Your task to perform on an android device: turn off location history Image 0: 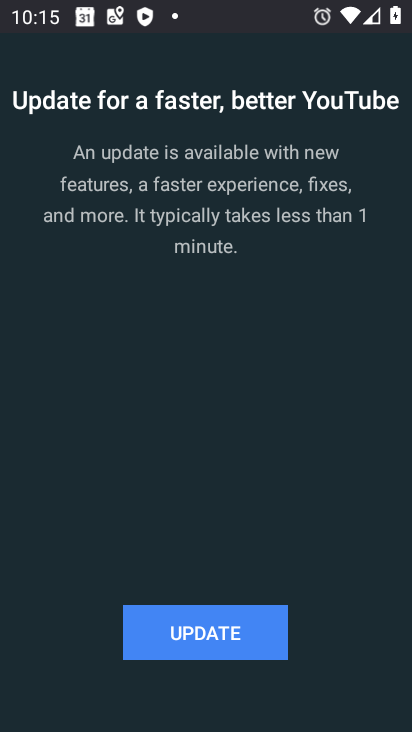
Step 0: press home button
Your task to perform on an android device: turn off location history Image 1: 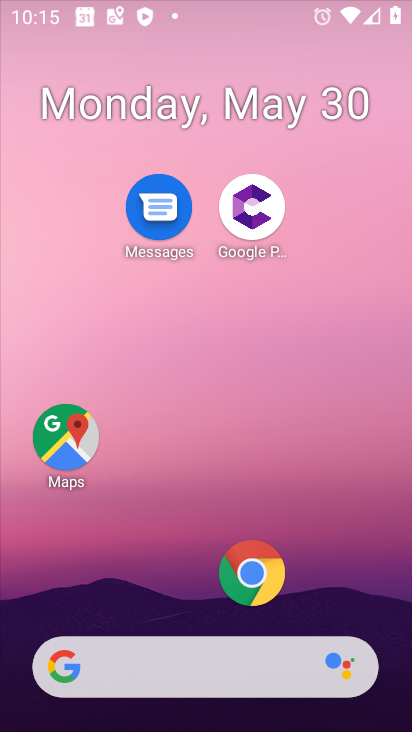
Step 1: drag from (239, 519) to (285, 67)
Your task to perform on an android device: turn off location history Image 2: 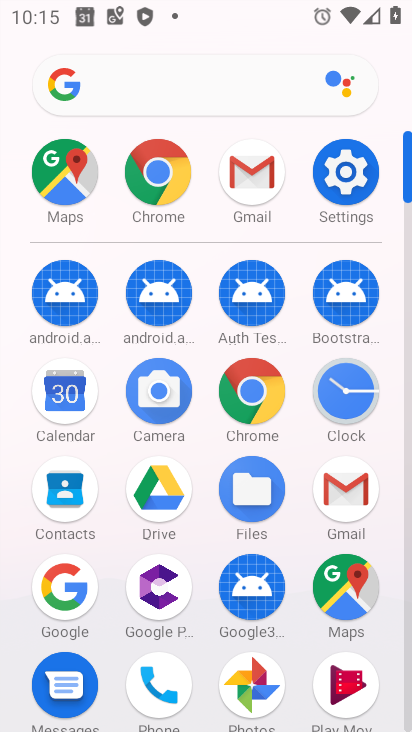
Step 2: click (342, 214)
Your task to perform on an android device: turn off location history Image 3: 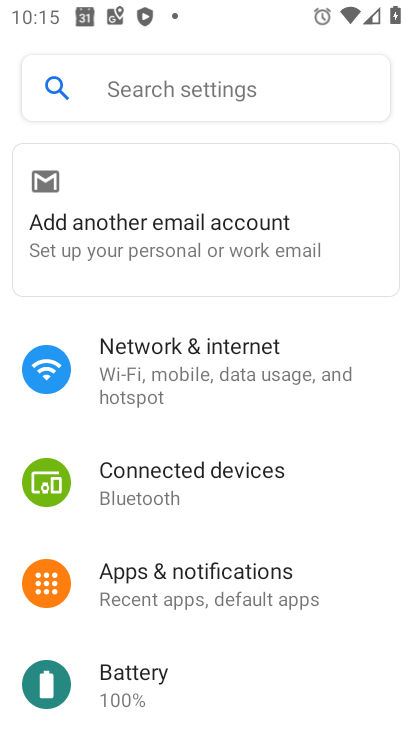
Step 3: drag from (117, 597) to (153, 224)
Your task to perform on an android device: turn off location history Image 4: 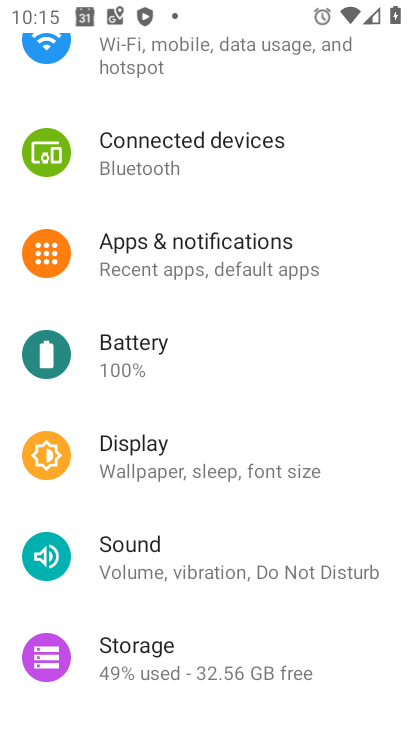
Step 4: drag from (187, 600) to (227, 251)
Your task to perform on an android device: turn off location history Image 5: 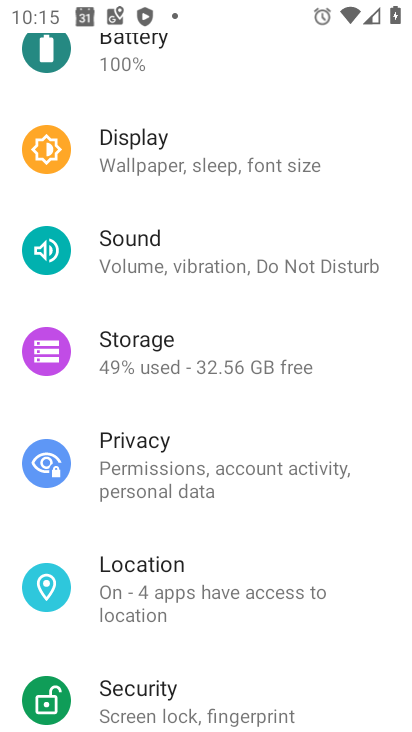
Step 5: click (228, 579)
Your task to perform on an android device: turn off location history Image 6: 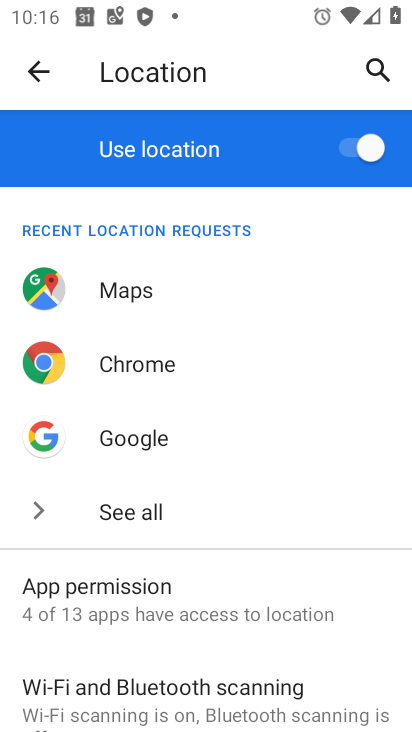
Step 6: drag from (232, 567) to (282, 194)
Your task to perform on an android device: turn off location history Image 7: 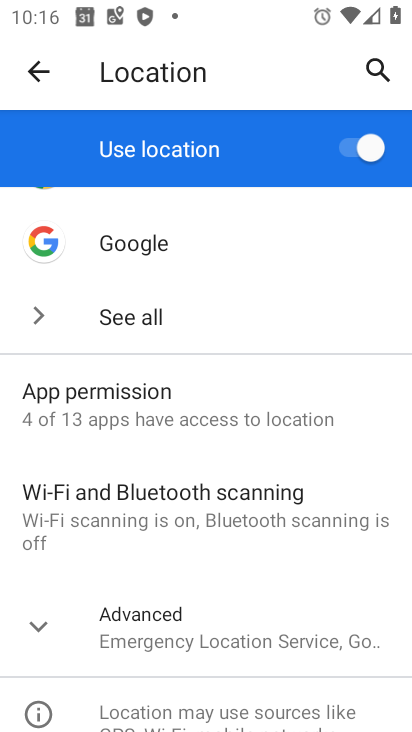
Step 7: click (154, 625)
Your task to perform on an android device: turn off location history Image 8: 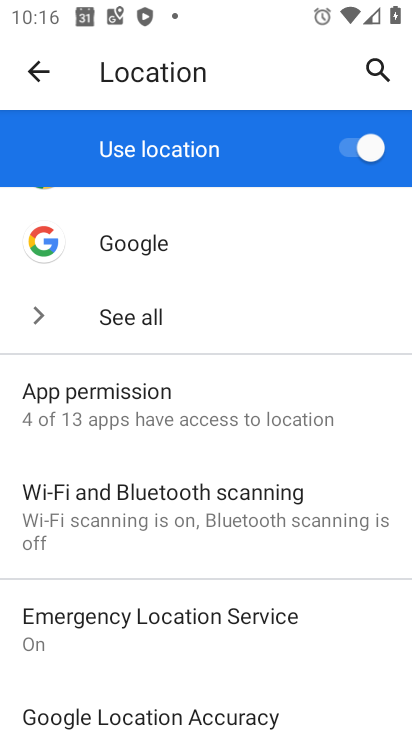
Step 8: drag from (158, 632) to (217, 321)
Your task to perform on an android device: turn off location history Image 9: 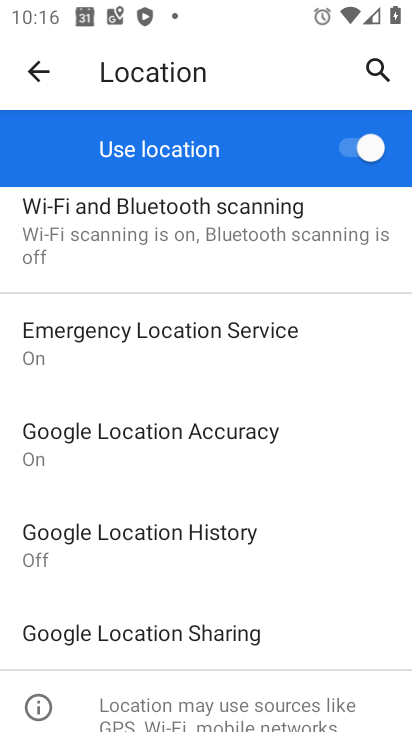
Step 9: click (243, 531)
Your task to perform on an android device: turn off location history Image 10: 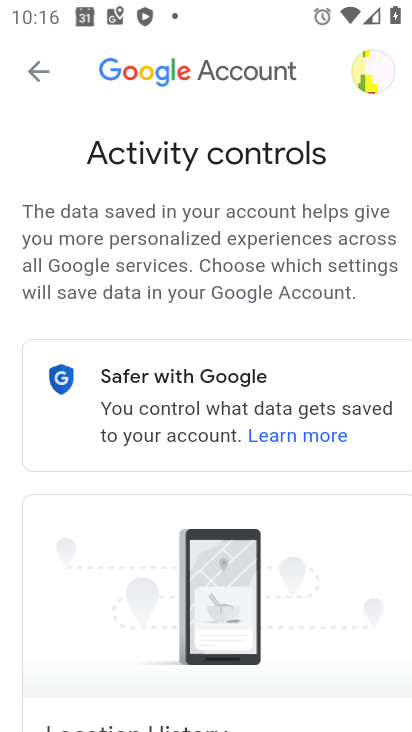
Step 10: drag from (243, 624) to (128, 292)
Your task to perform on an android device: turn off location history Image 11: 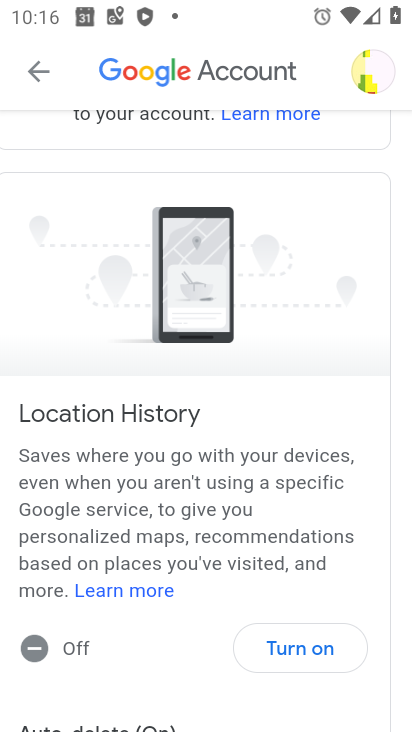
Step 11: click (79, 656)
Your task to perform on an android device: turn off location history Image 12: 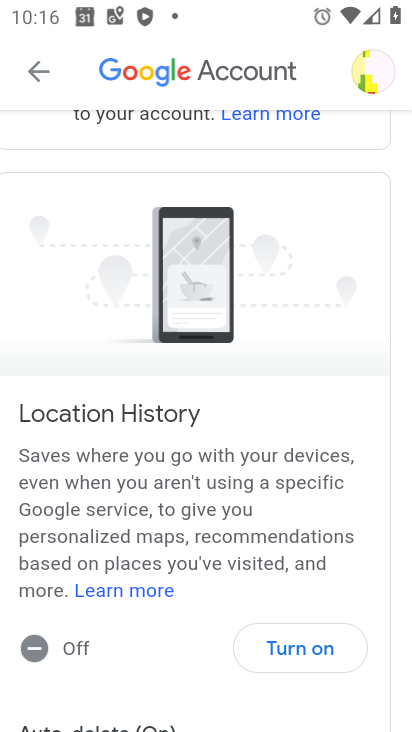
Step 12: task complete